Your task to perform on an android device: toggle airplane mode Image 0: 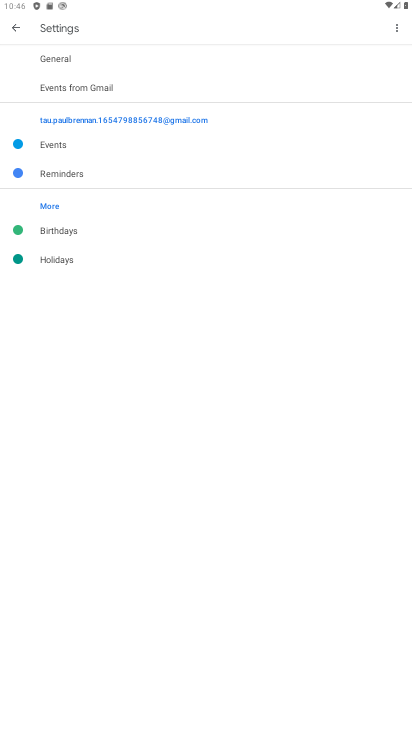
Step 0: press home button
Your task to perform on an android device: toggle airplane mode Image 1: 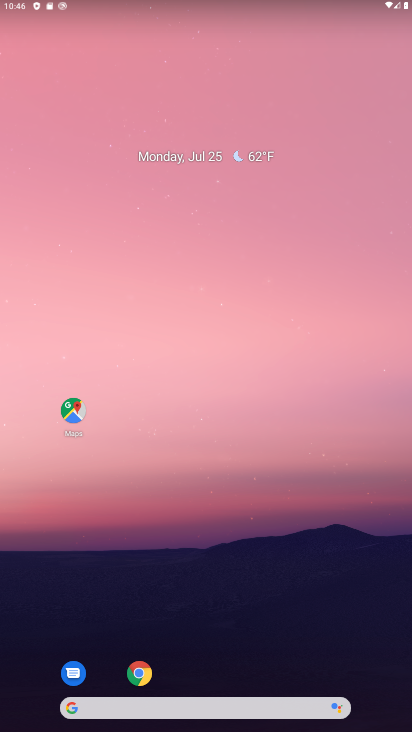
Step 1: drag from (241, 670) to (232, 0)
Your task to perform on an android device: toggle airplane mode Image 2: 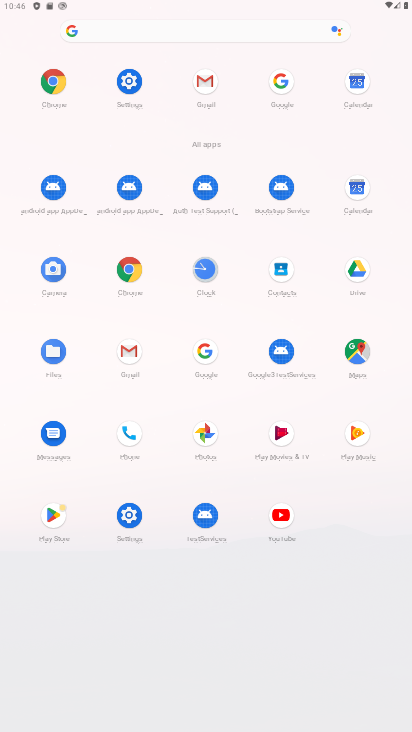
Step 2: click (126, 83)
Your task to perform on an android device: toggle airplane mode Image 3: 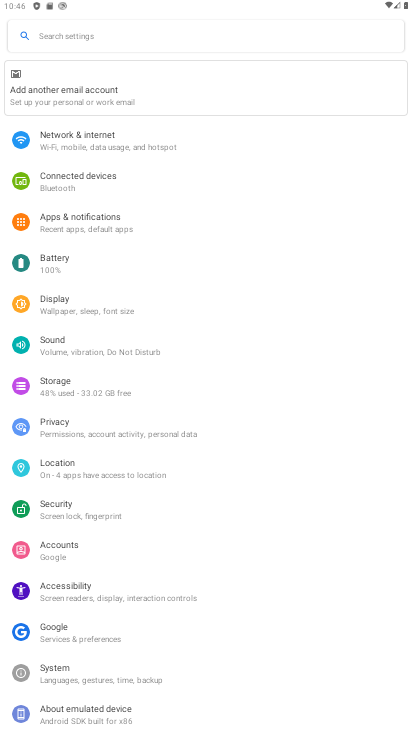
Step 3: click (93, 146)
Your task to perform on an android device: toggle airplane mode Image 4: 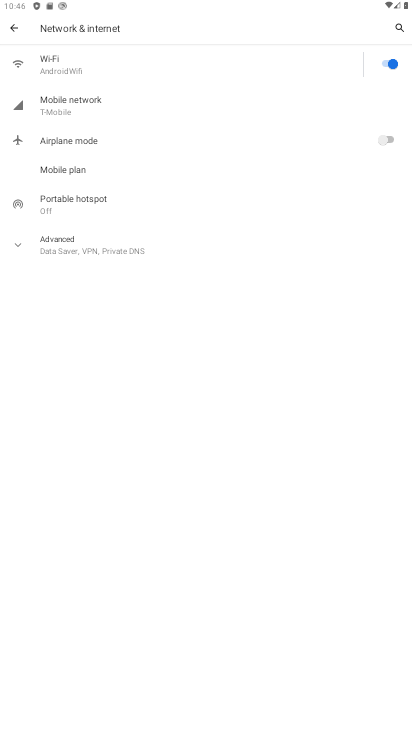
Step 4: click (394, 144)
Your task to perform on an android device: toggle airplane mode Image 5: 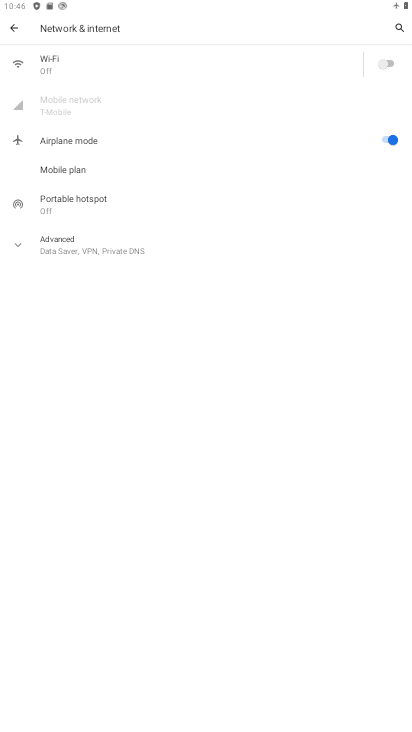
Step 5: task complete